Your task to perform on an android device: Open the calendar and show me this week's events? Image 0: 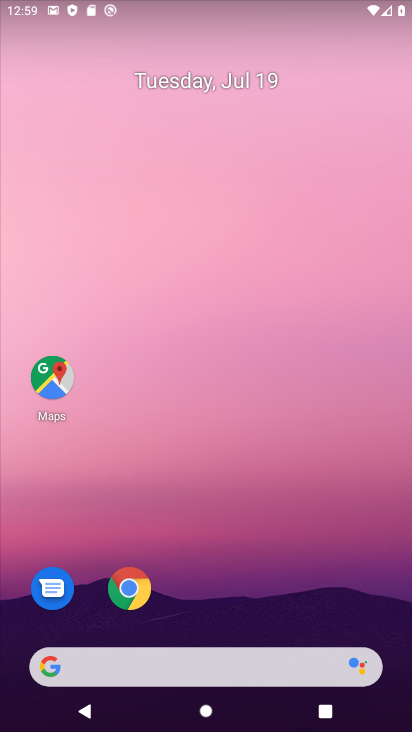
Step 0: drag from (25, 697) to (208, 184)
Your task to perform on an android device: Open the calendar and show me this week's events? Image 1: 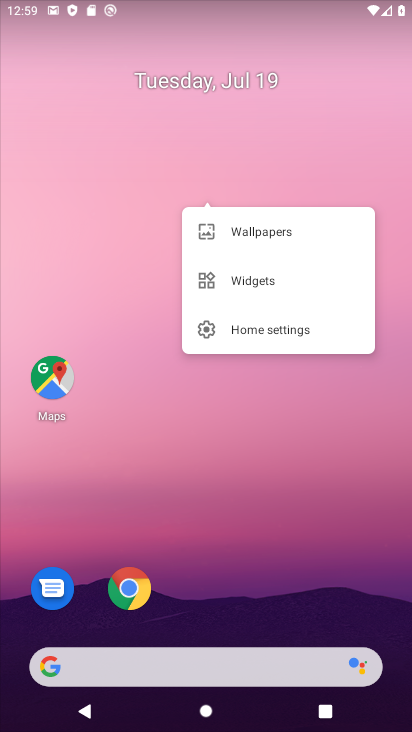
Step 1: drag from (22, 661) to (169, 45)
Your task to perform on an android device: Open the calendar and show me this week's events? Image 2: 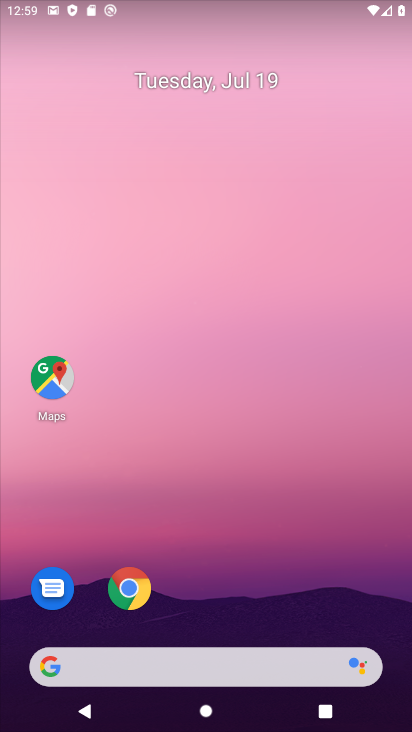
Step 2: drag from (29, 679) to (216, 343)
Your task to perform on an android device: Open the calendar and show me this week's events? Image 3: 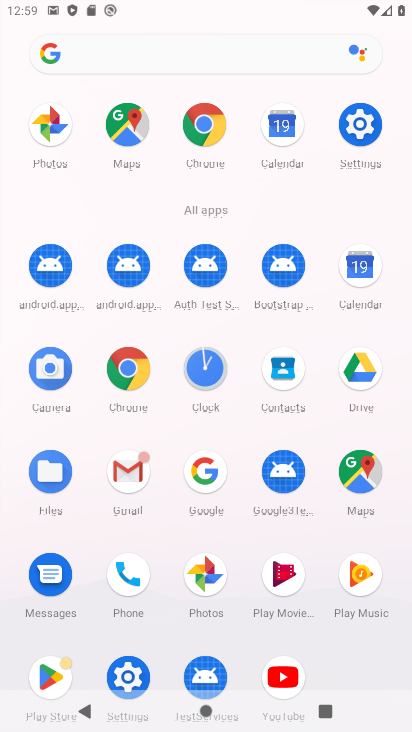
Step 3: click (367, 252)
Your task to perform on an android device: Open the calendar and show me this week's events? Image 4: 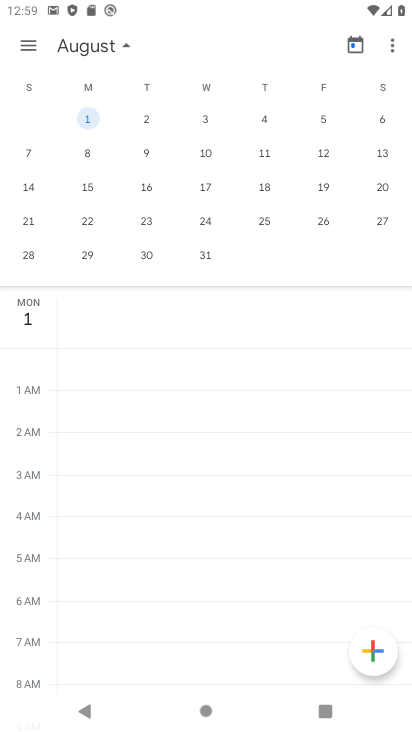
Step 4: drag from (18, 130) to (368, 154)
Your task to perform on an android device: Open the calendar and show me this week's events? Image 5: 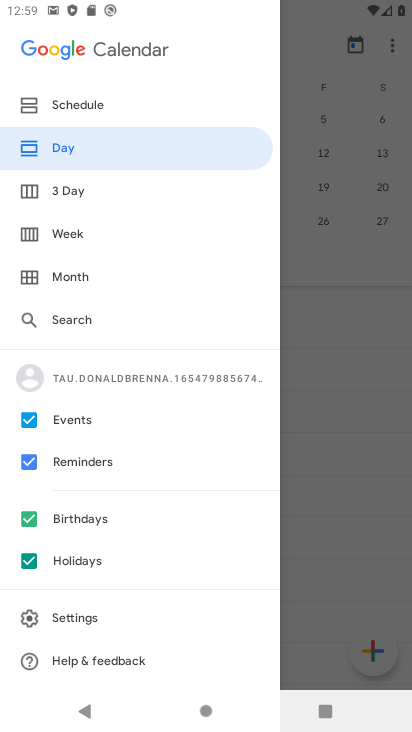
Step 5: click (336, 333)
Your task to perform on an android device: Open the calendar and show me this week's events? Image 6: 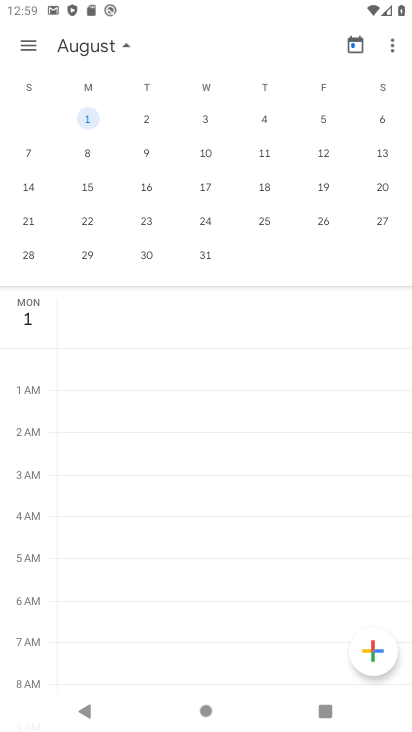
Step 6: drag from (31, 105) to (410, 116)
Your task to perform on an android device: Open the calendar and show me this week's events? Image 7: 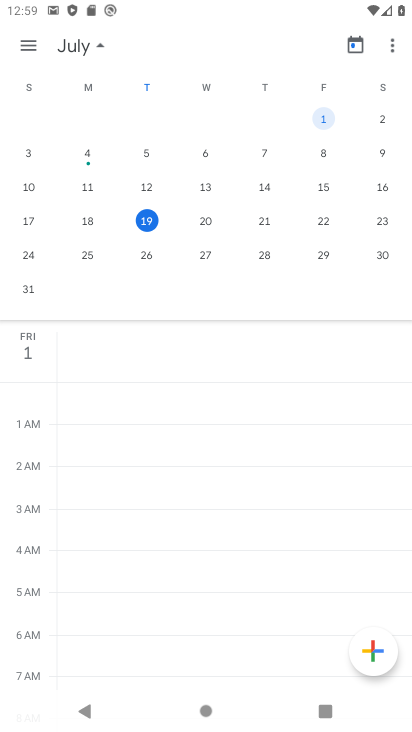
Step 7: click (29, 35)
Your task to perform on an android device: Open the calendar and show me this week's events? Image 8: 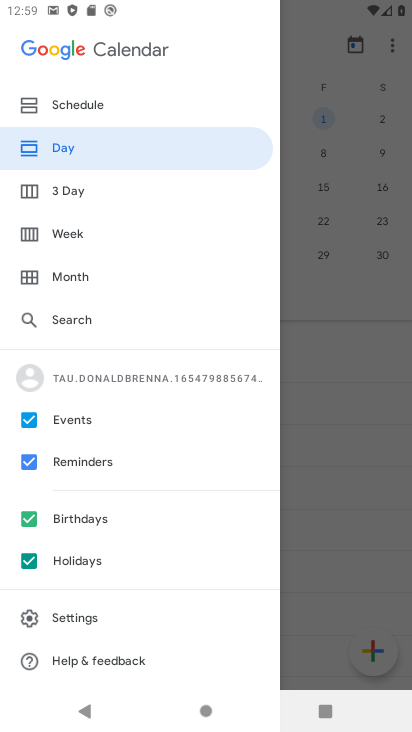
Step 8: click (79, 118)
Your task to perform on an android device: Open the calendar and show me this week's events? Image 9: 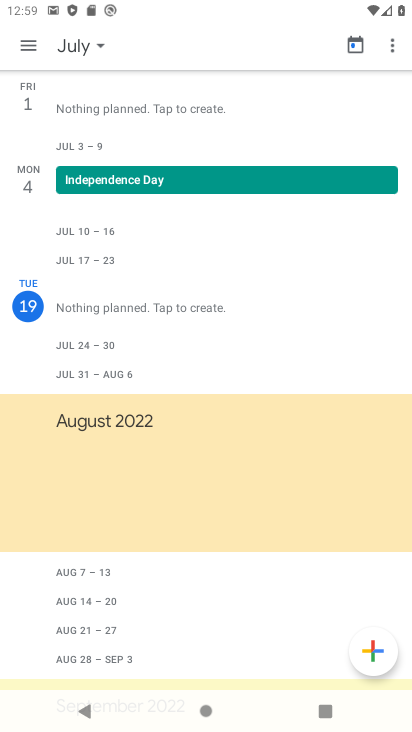
Step 9: click (87, 41)
Your task to perform on an android device: Open the calendar and show me this week's events? Image 10: 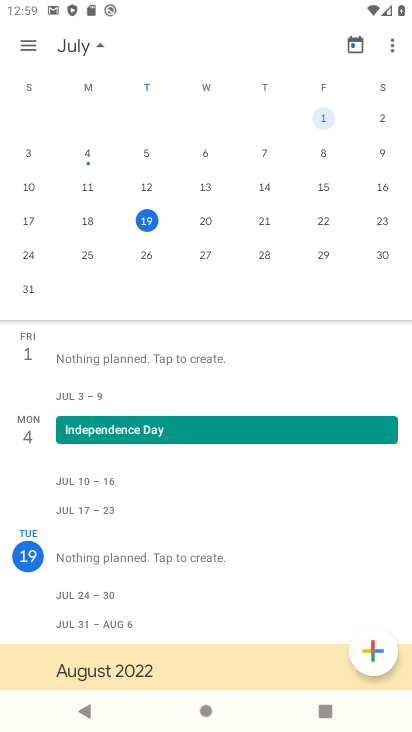
Step 10: task complete